Your task to perform on an android device: Search for sushi restaurants on Maps Image 0: 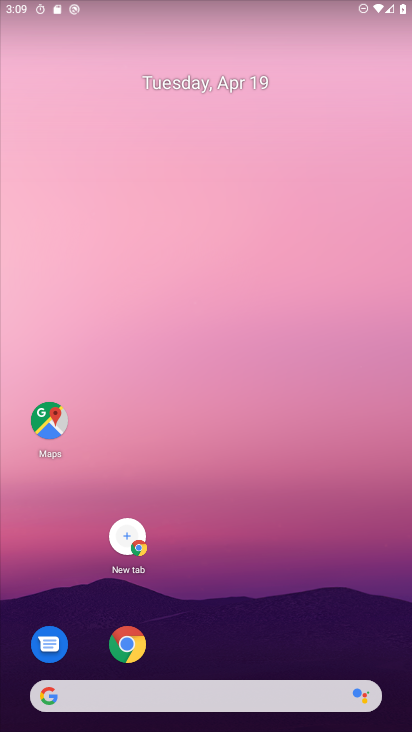
Step 0: click (52, 430)
Your task to perform on an android device: Search for sushi restaurants on Maps Image 1: 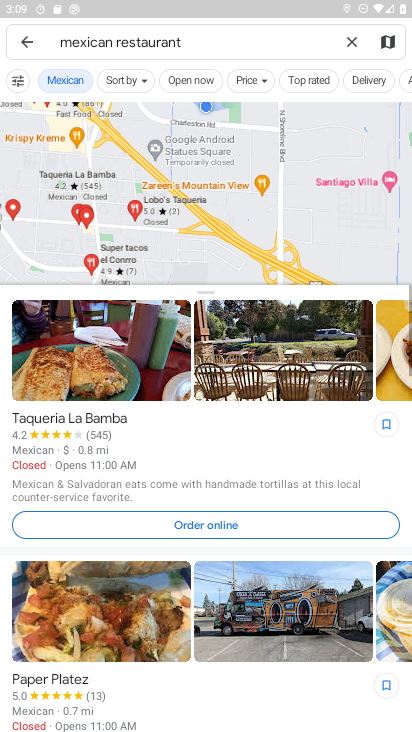
Step 1: click (354, 38)
Your task to perform on an android device: Search for sushi restaurants on Maps Image 2: 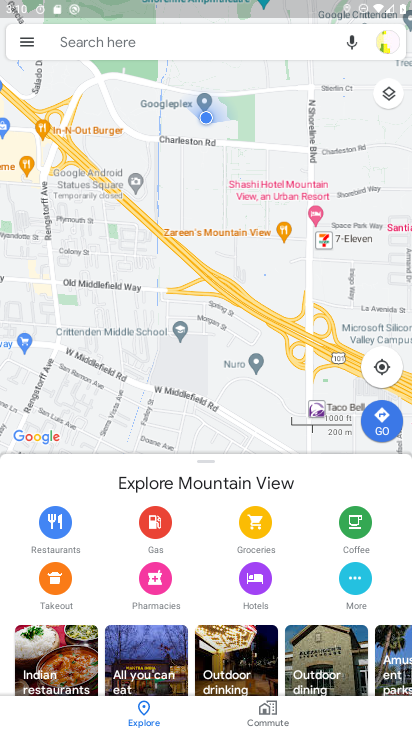
Step 2: click (208, 46)
Your task to perform on an android device: Search for sushi restaurants on Maps Image 3: 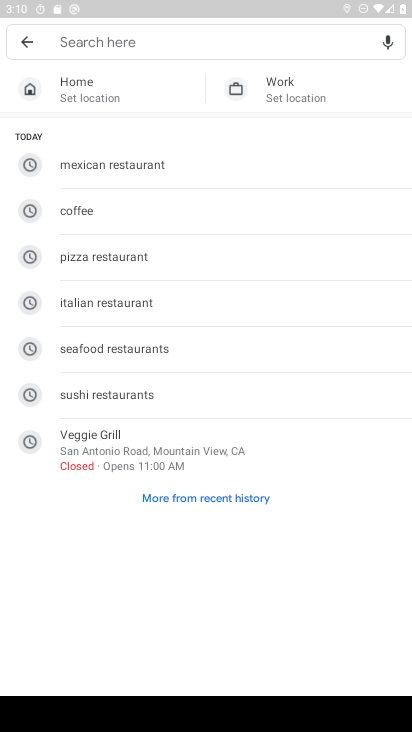
Step 3: click (100, 395)
Your task to perform on an android device: Search for sushi restaurants on Maps Image 4: 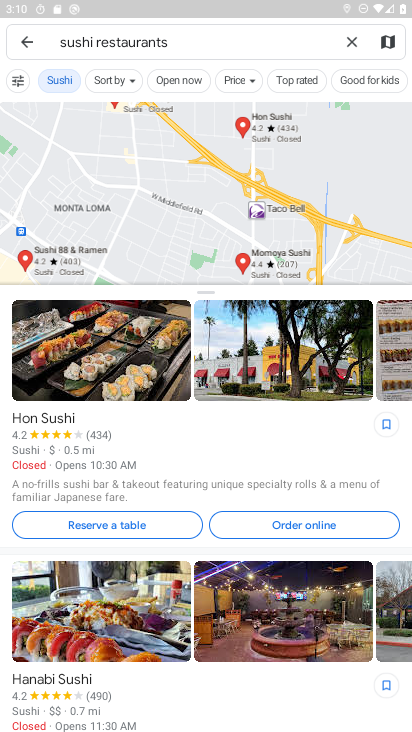
Step 4: task complete